Your task to perform on an android device: Go to Google Image 0: 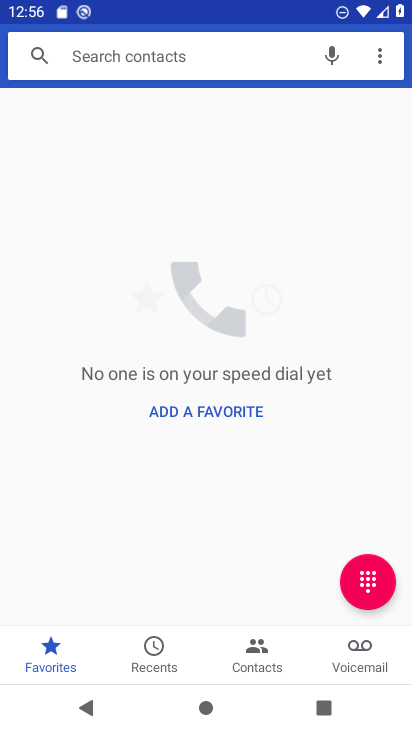
Step 0: press home button
Your task to perform on an android device: Go to Google Image 1: 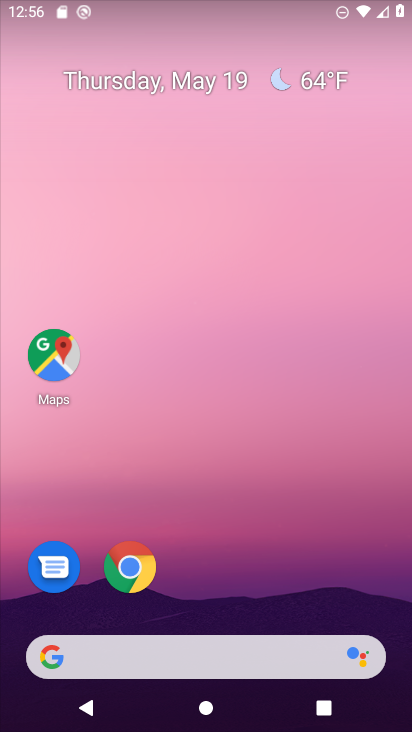
Step 1: drag from (225, 562) to (225, 167)
Your task to perform on an android device: Go to Google Image 2: 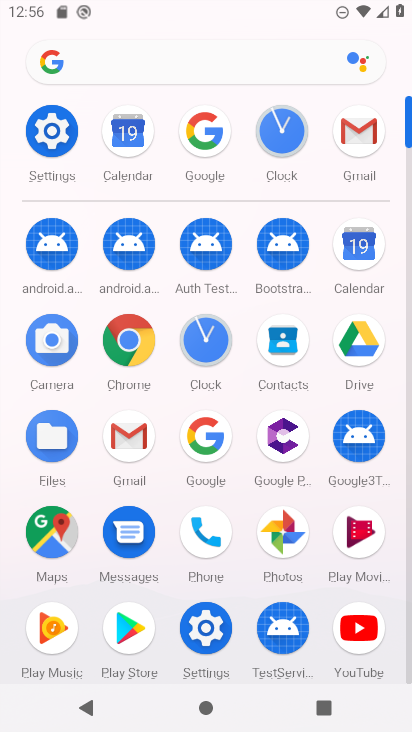
Step 2: click (201, 441)
Your task to perform on an android device: Go to Google Image 3: 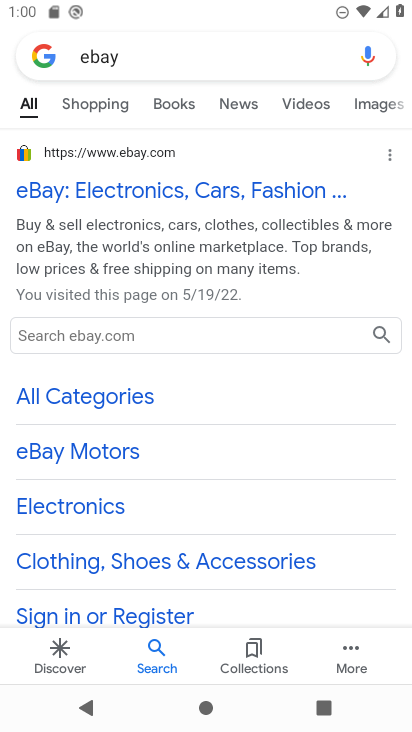
Step 3: task complete